Your task to perform on an android device: set the timer Image 0: 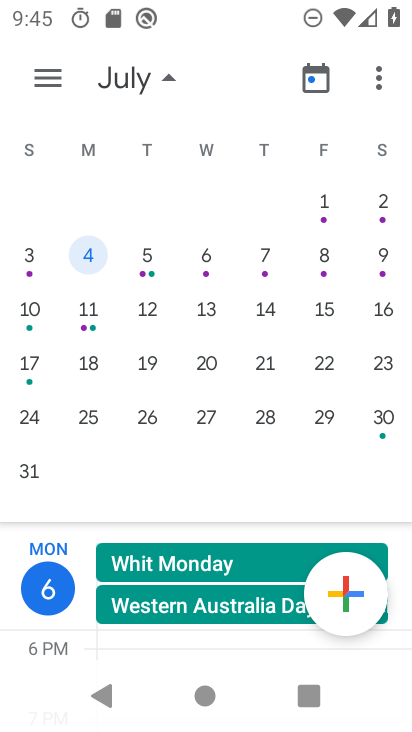
Step 0: press home button
Your task to perform on an android device: set the timer Image 1: 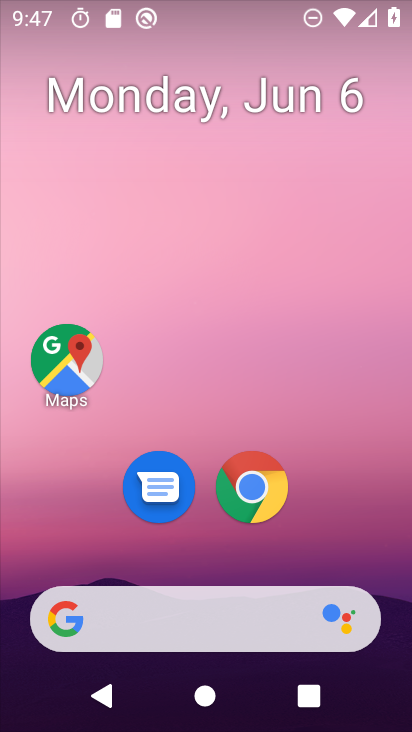
Step 1: drag from (355, 481) to (305, 11)
Your task to perform on an android device: set the timer Image 2: 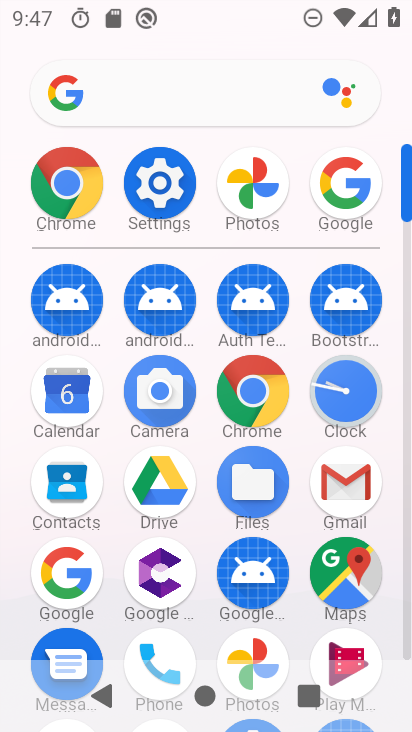
Step 2: click (351, 383)
Your task to perform on an android device: set the timer Image 3: 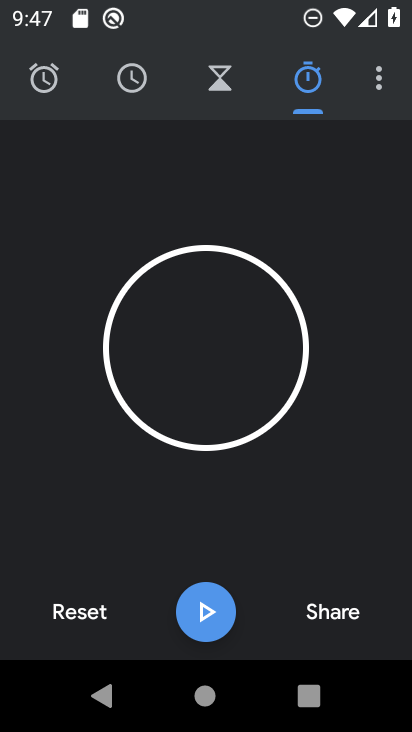
Step 3: click (377, 85)
Your task to perform on an android device: set the timer Image 4: 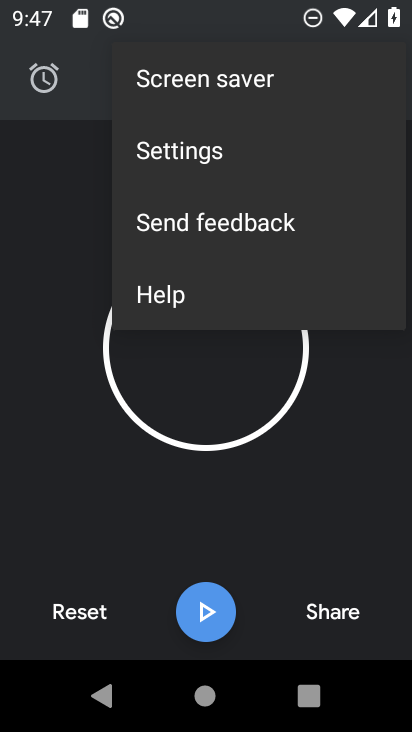
Step 4: click (282, 149)
Your task to perform on an android device: set the timer Image 5: 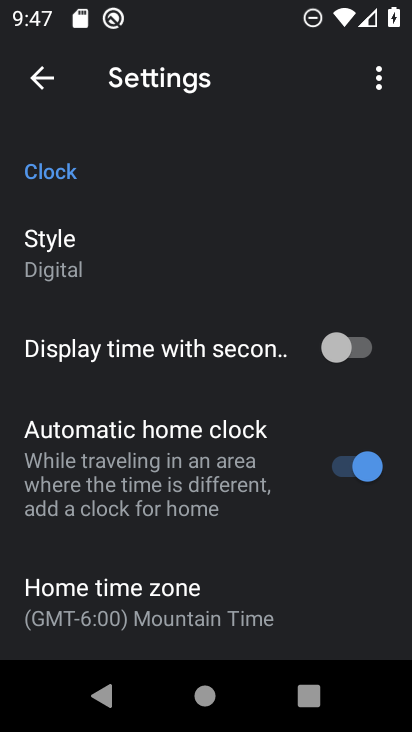
Step 5: click (183, 610)
Your task to perform on an android device: set the timer Image 6: 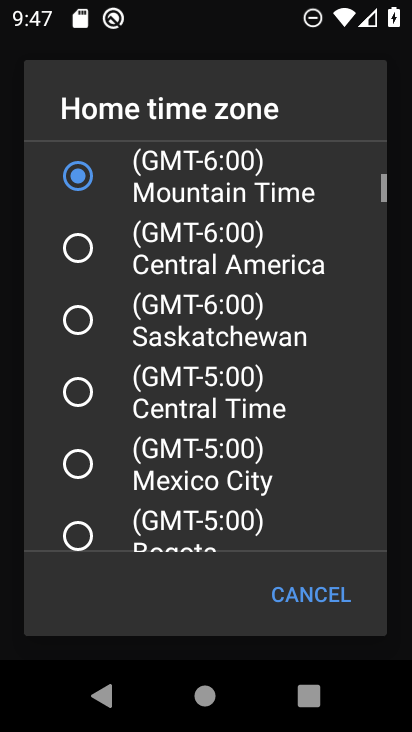
Step 6: click (181, 472)
Your task to perform on an android device: set the timer Image 7: 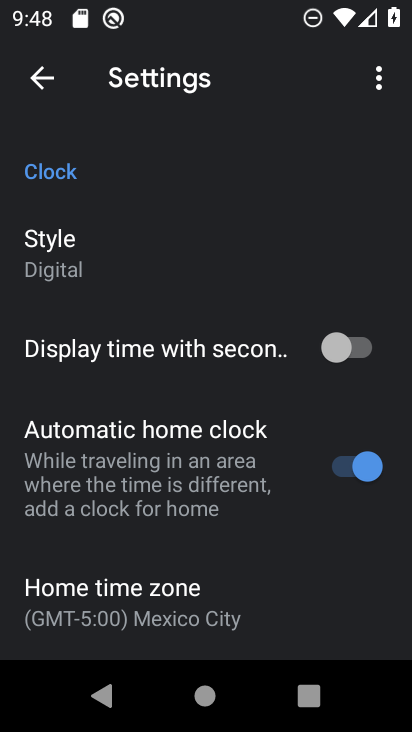
Step 7: task complete